Your task to perform on an android device: turn on location history Image 0: 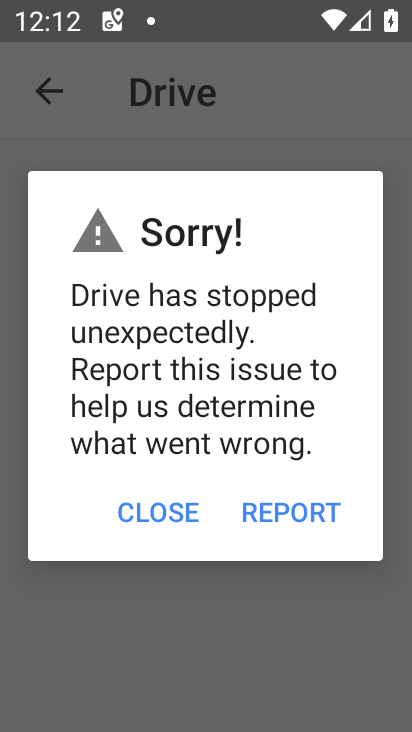
Step 0: press home button
Your task to perform on an android device: turn on location history Image 1: 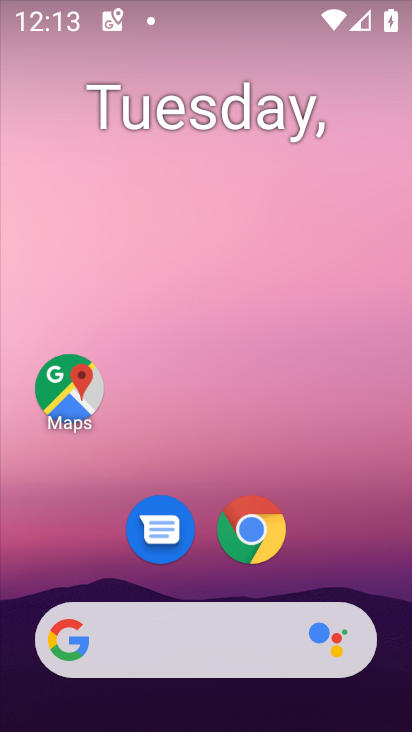
Step 1: drag from (219, 671) to (219, 16)
Your task to perform on an android device: turn on location history Image 2: 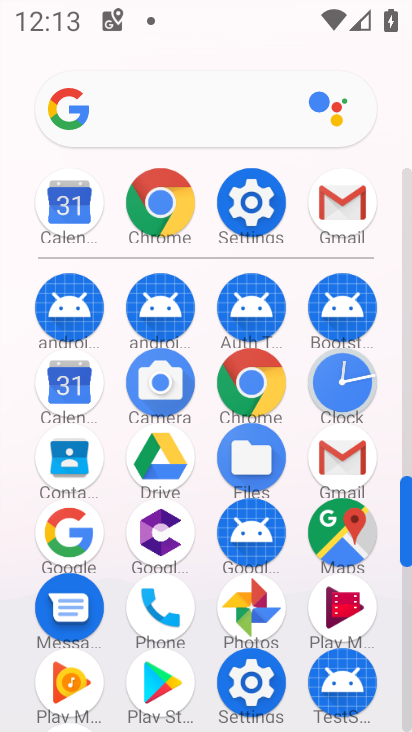
Step 2: click (245, 181)
Your task to perform on an android device: turn on location history Image 3: 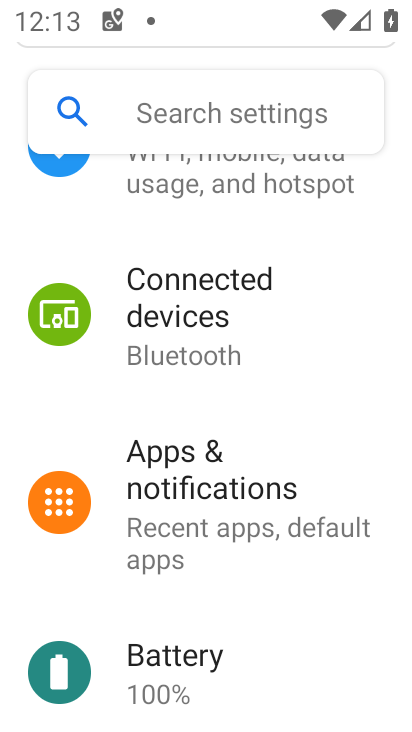
Step 3: click (171, 109)
Your task to perform on an android device: turn on location history Image 4: 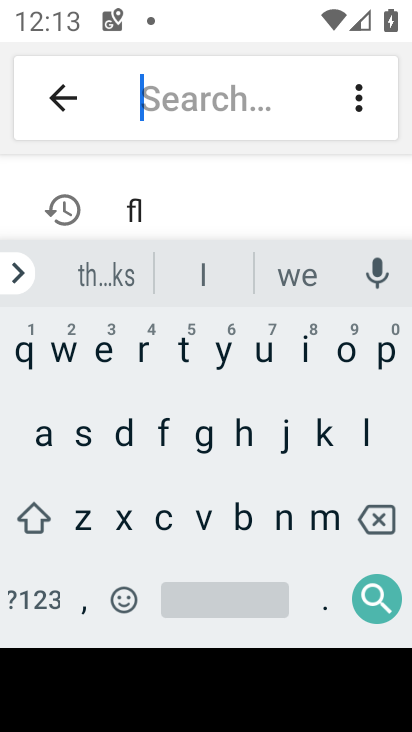
Step 4: click (367, 452)
Your task to perform on an android device: turn on location history Image 5: 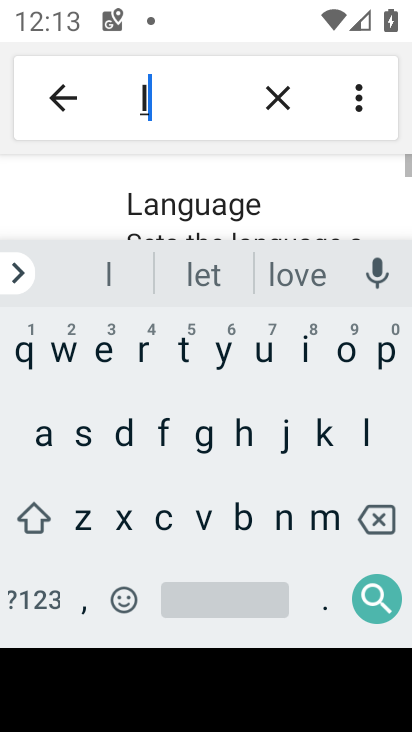
Step 5: click (345, 344)
Your task to perform on an android device: turn on location history Image 6: 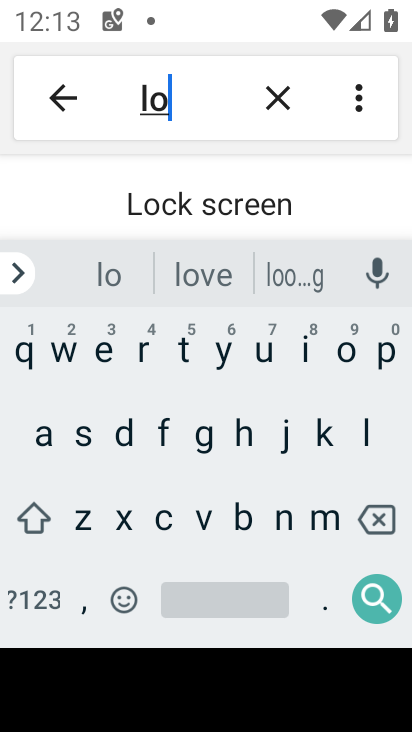
Step 6: press back button
Your task to perform on an android device: turn on location history Image 7: 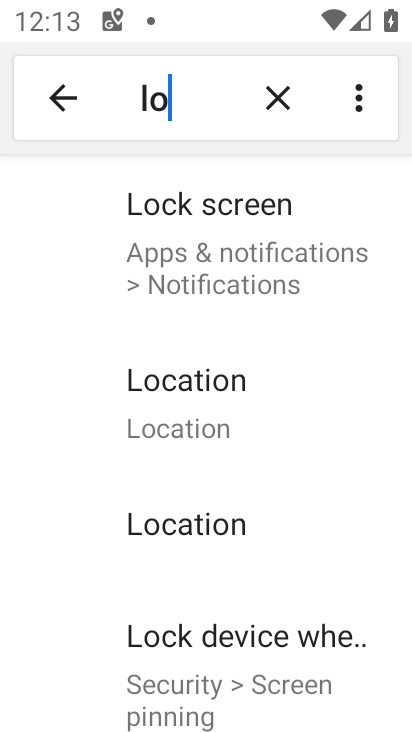
Step 7: click (203, 392)
Your task to perform on an android device: turn on location history Image 8: 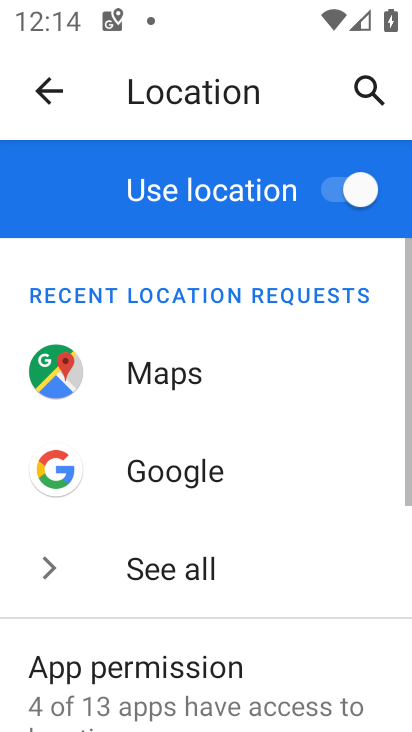
Step 8: drag from (202, 612) to (205, 169)
Your task to perform on an android device: turn on location history Image 9: 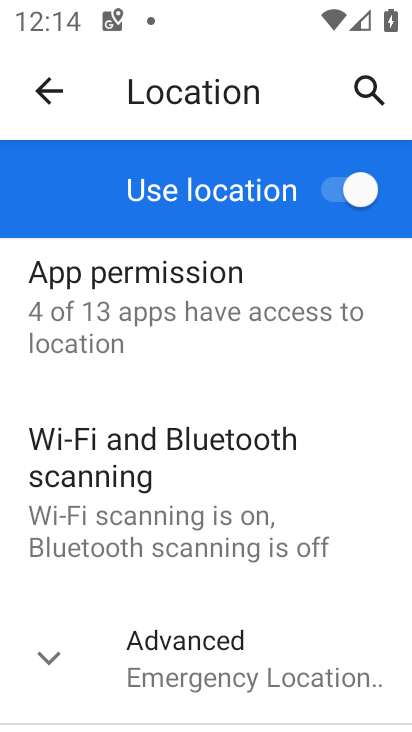
Step 9: drag from (106, 581) to (106, 301)
Your task to perform on an android device: turn on location history Image 10: 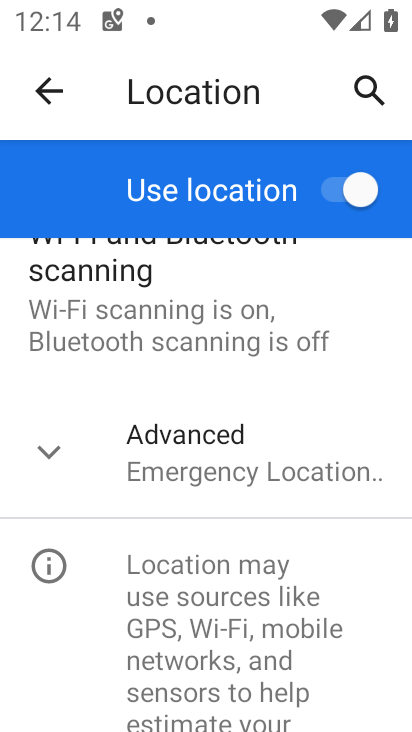
Step 10: click (92, 464)
Your task to perform on an android device: turn on location history Image 11: 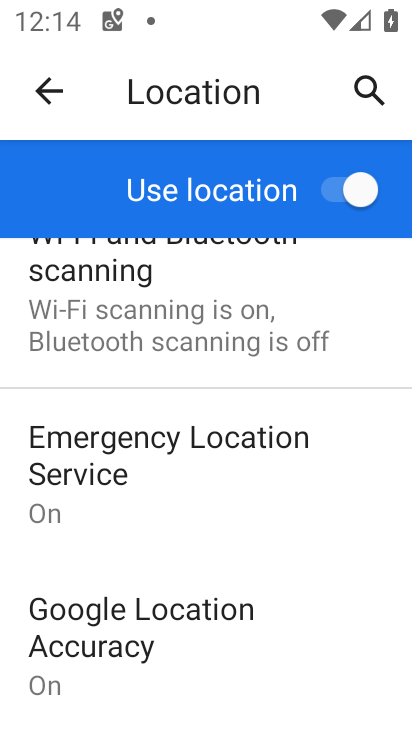
Step 11: drag from (119, 633) to (111, 404)
Your task to perform on an android device: turn on location history Image 12: 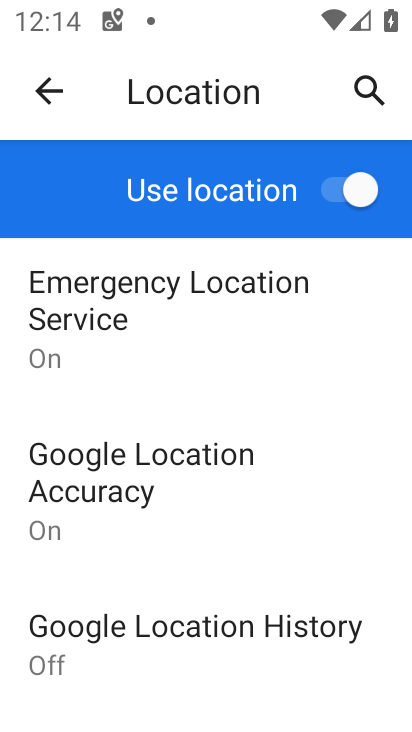
Step 12: click (133, 624)
Your task to perform on an android device: turn on location history Image 13: 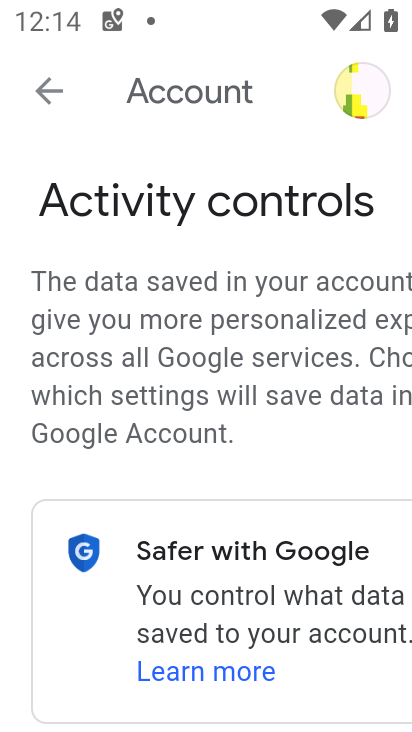
Step 13: task complete